Your task to perform on an android device: Open Chrome and go to settings Image 0: 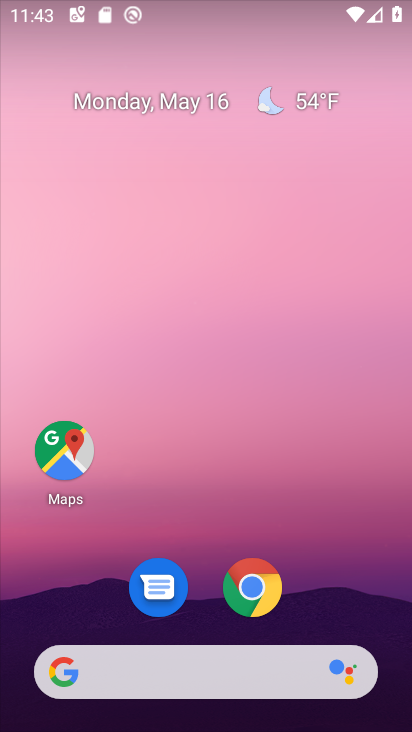
Step 0: click (250, 577)
Your task to perform on an android device: Open Chrome and go to settings Image 1: 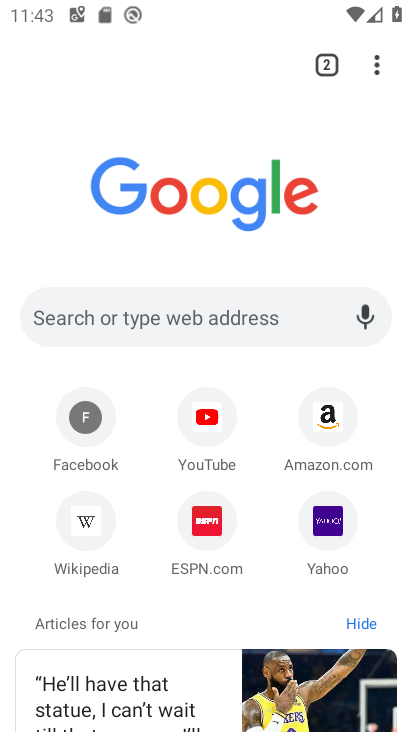
Step 1: click (371, 63)
Your task to perform on an android device: Open Chrome and go to settings Image 2: 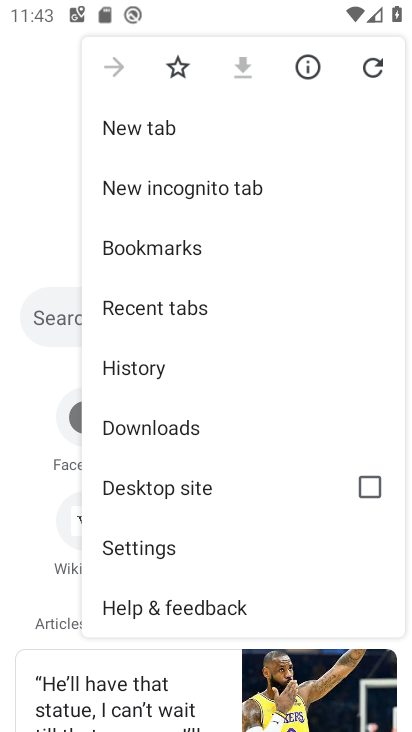
Step 2: click (167, 543)
Your task to perform on an android device: Open Chrome and go to settings Image 3: 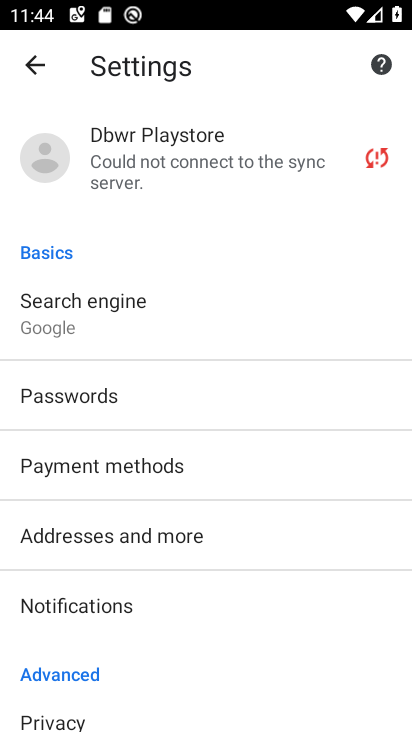
Step 3: task complete